Your task to perform on an android device: turn pop-ups on in chrome Image 0: 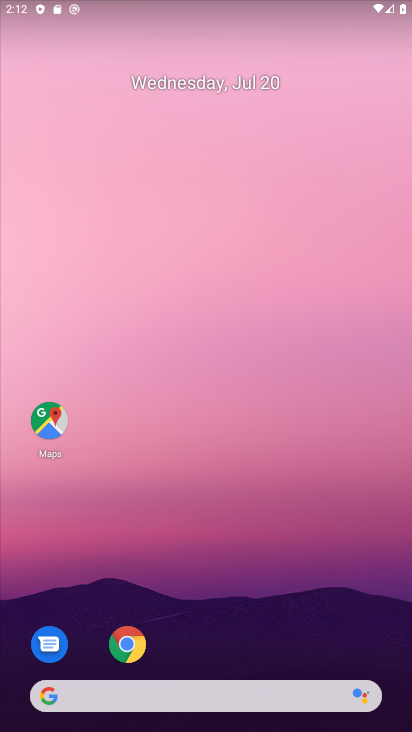
Step 0: click (128, 642)
Your task to perform on an android device: turn pop-ups on in chrome Image 1: 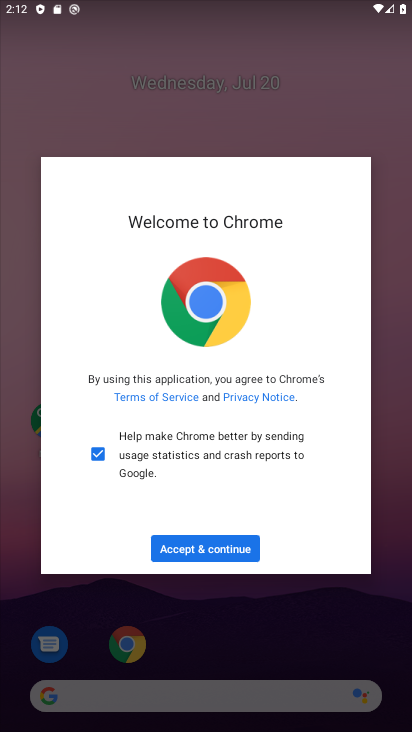
Step 1: click (200, 553)
Your task to perform on an android device: turn pop-ups on in chrome Image 2: 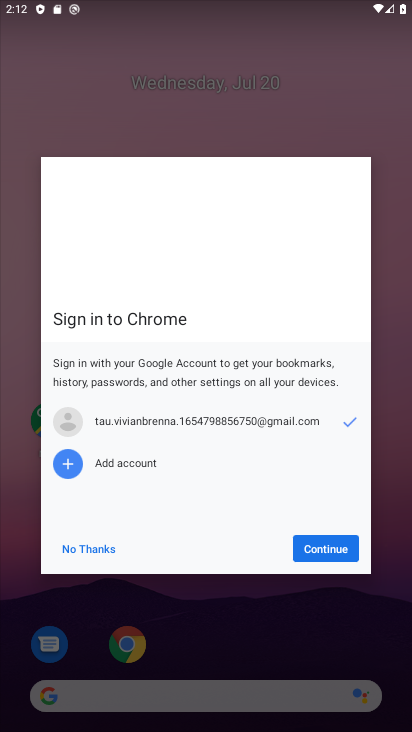
Step 2: click (312, 550)
Your task to perform on an android device: turn pop-ups on in chrome Image 3: 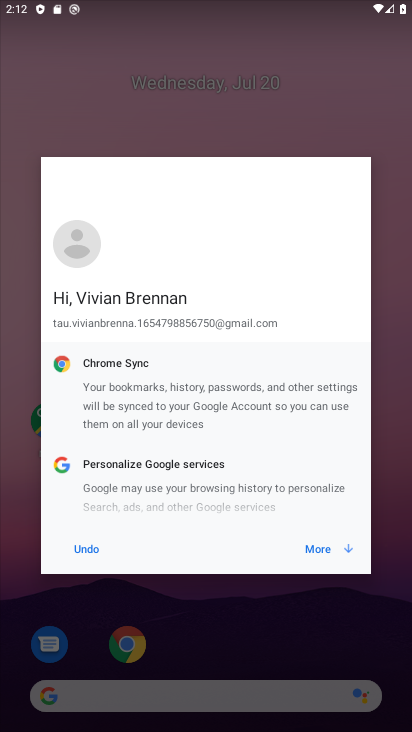
Step 3: click (304, 562)
Your task to perform on an android device: turn pop-ups on in chrome Image 4: 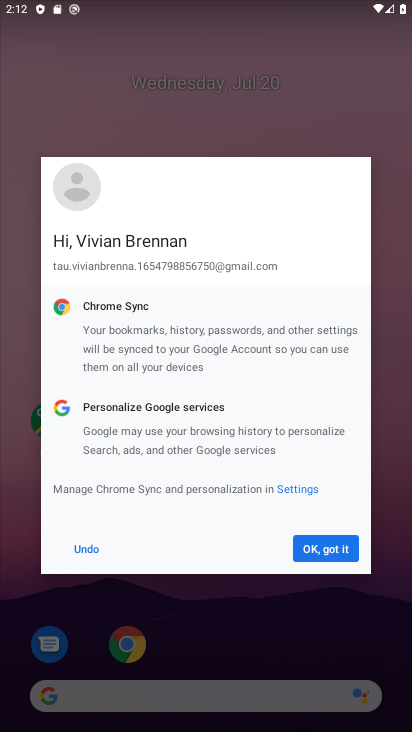
Step 4: click (321, 551)
Your task to perform on an android device: turn pop-ups on in chrome Image 5: 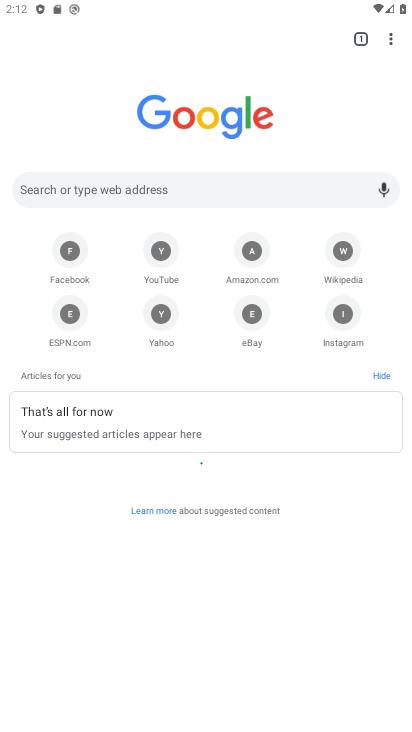
Step 5: click (391, 38)
Your task to perform on an android device: turn pop-ups on in chrome Image 6: 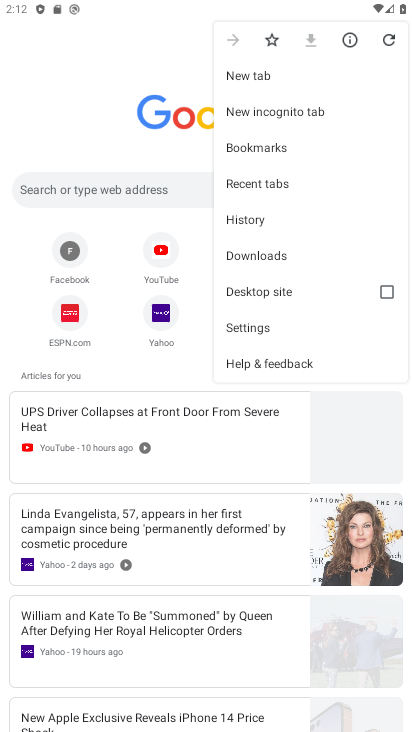
Step 6: click (302, 335)
Your task to perform on an android device: turn pop-ups on in chrome Image 7: 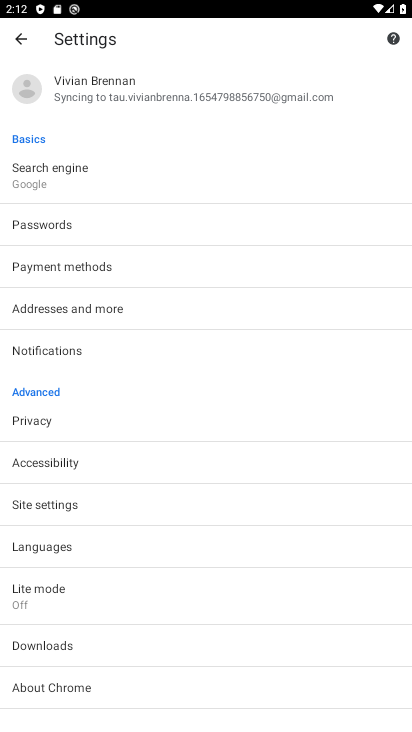
Step 7: click (74, 512)
Your task to perform on an android device: turn pop-ups on in chrome Image 8: 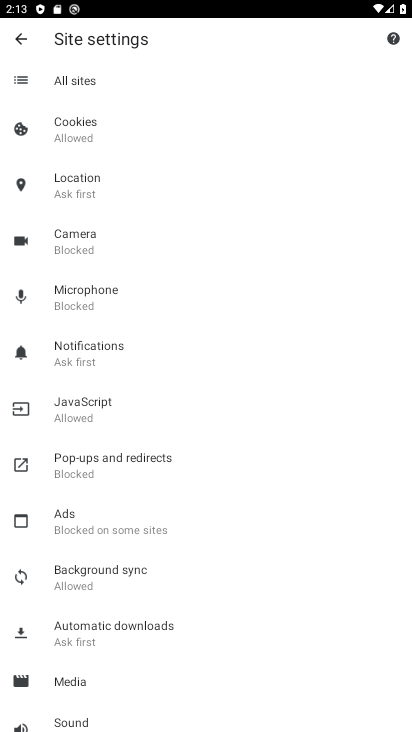
Step 8: click (121, 467)
Your task to perform on an android device: turn pop-ups on in chrome Image 9: 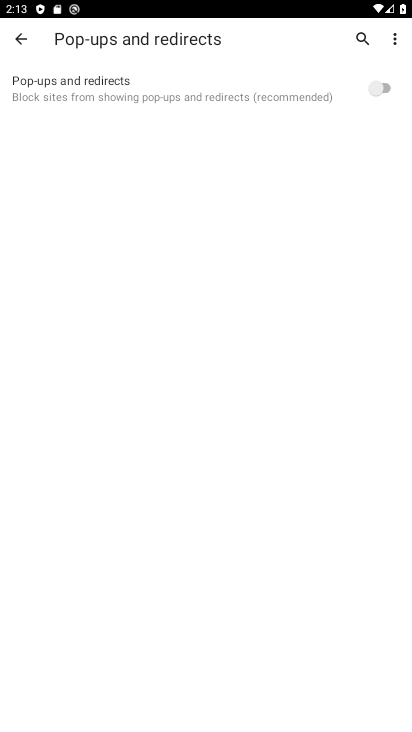
Step 9: click (375, 88)
Your task to perform on an android device: turn pop-ups on in chrome Image 10: 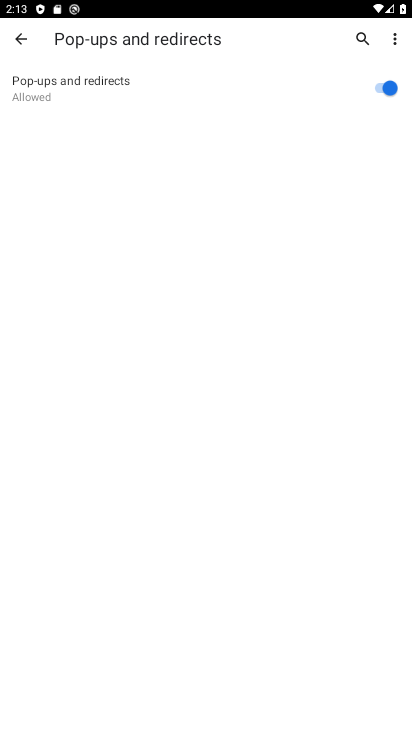
Step 10: task complete